Your task to perform on an android device: change notifications settings Image 0: 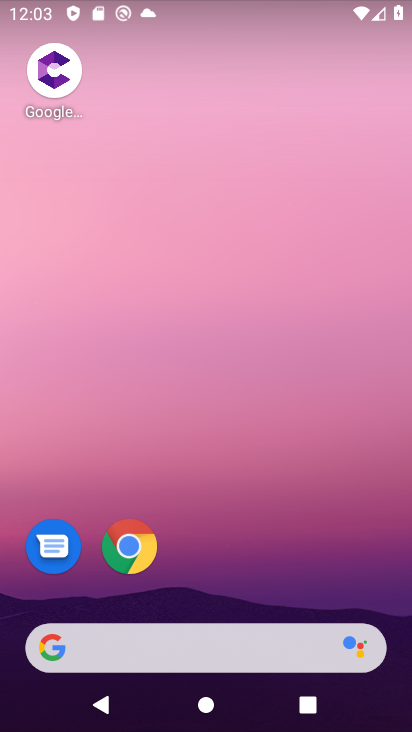
Step 0: drag from (193, 586) to (185, 31)
Your task to perform on an android device: change notifications settings Image 1: 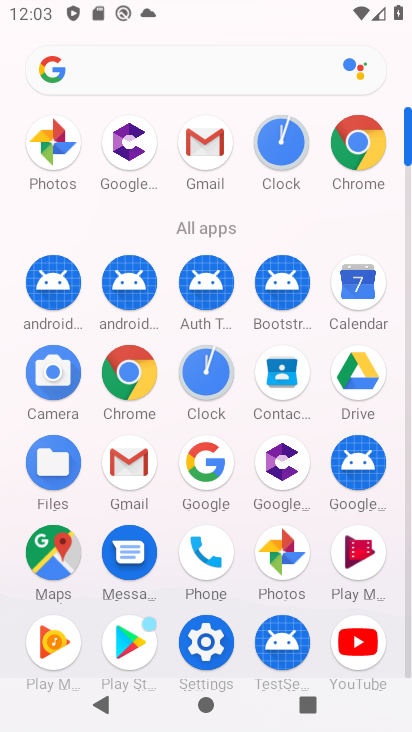
Step 1: click (202, 624)
Your task to perform on an android device: change notifications settings Image 2: 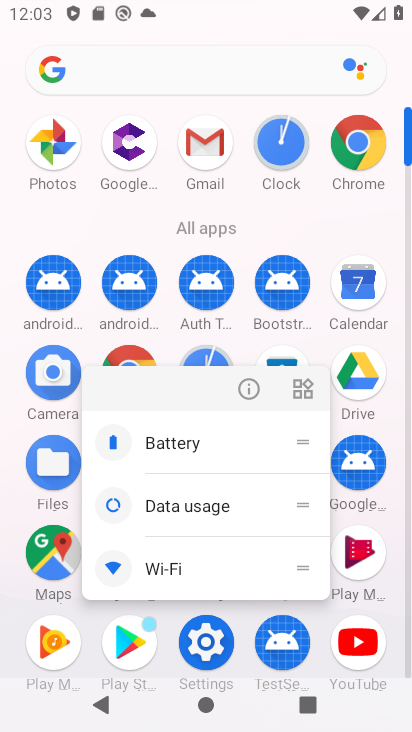
Step 2: click (258, 387)
Your task to perform on an android device: change notifications settings Image 3: 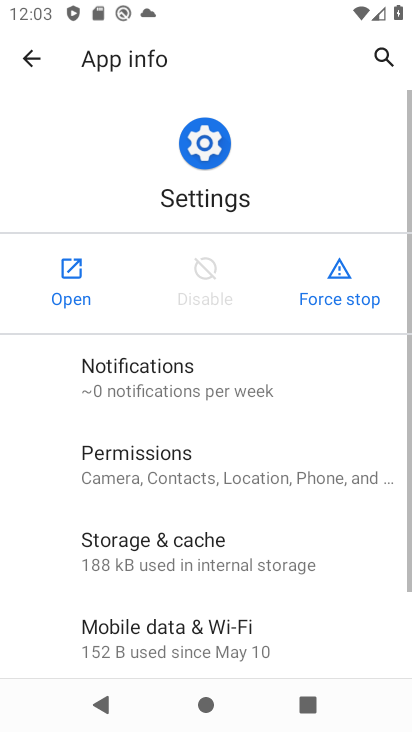
Step 3: click (63, 291)
Your task to perform on an android device: change notifications settings Image 4: 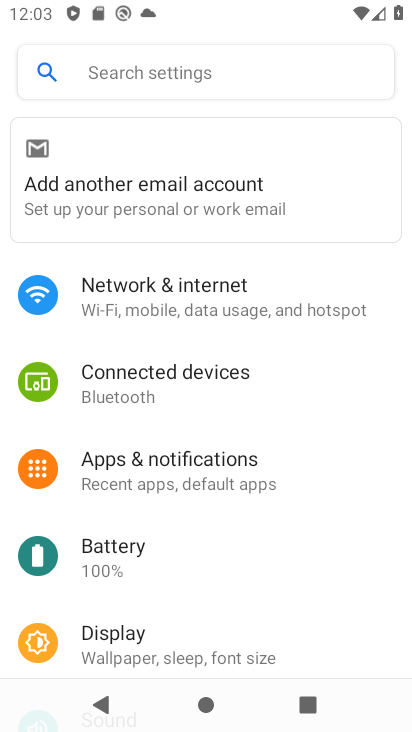
Step 4: drag from (197, 527) to (286, 191)
Your task to perform on an android device: change notifications settings Image 5: 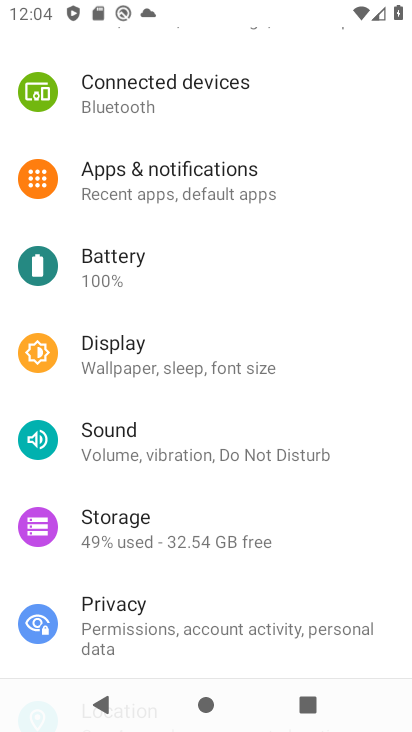
Step 5: drag from (120, 580) to (237, 256)
Your task to perform on an android device: change notifications settings Image 6: 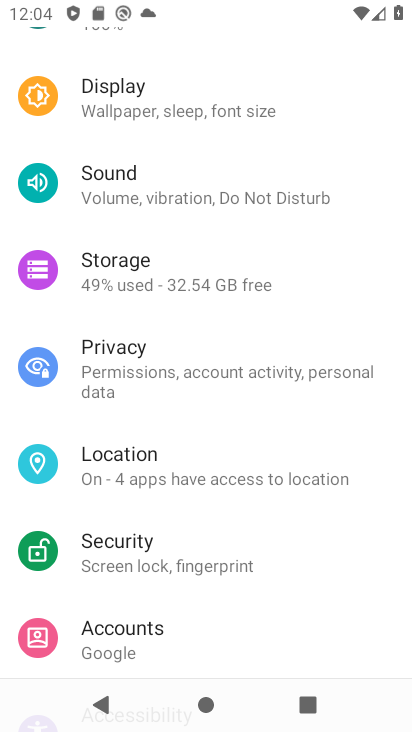
Step 6: drag from (218, 179) to (310, 725)
Your task to perform on an android device: change notifications settings Image 7: 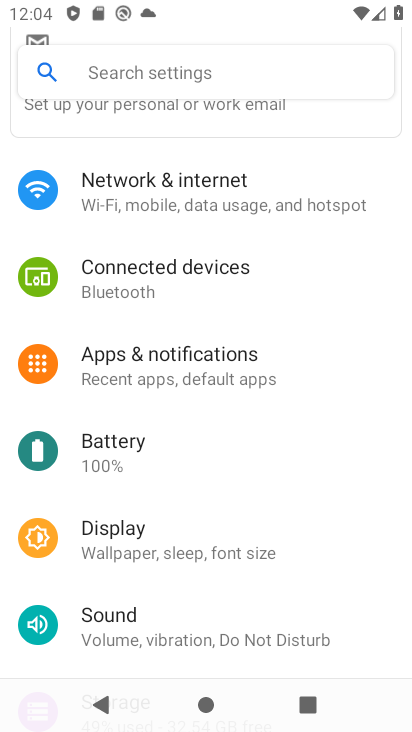
Step 7: click (180, 371)
Your task to perform on an android device: change notifications settings Image 8: 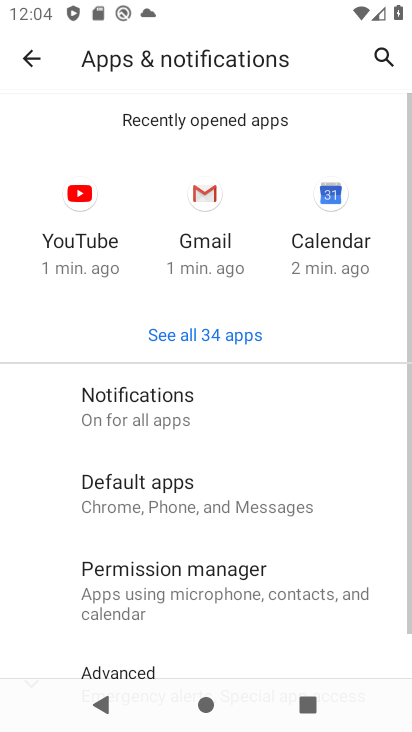
Step 8: click (188, 416)
Your task to perform on an android device: change notifications settings Image 9: 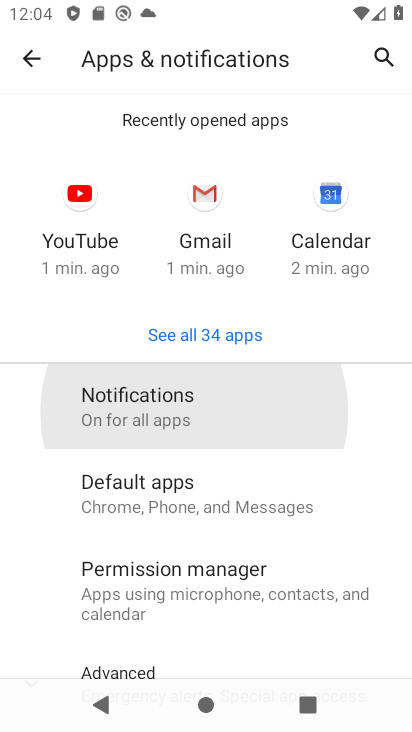
Step 9: click (188, 416)
Your task to perform on an android device: change notifications settings Image 10: 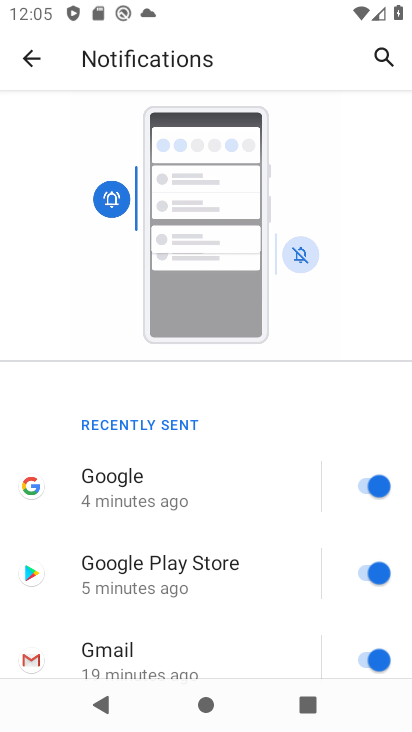
Step 10: drag from (170, 514) to (200, 443)
Your task to perform on an android device: change notifications settings Image 11: 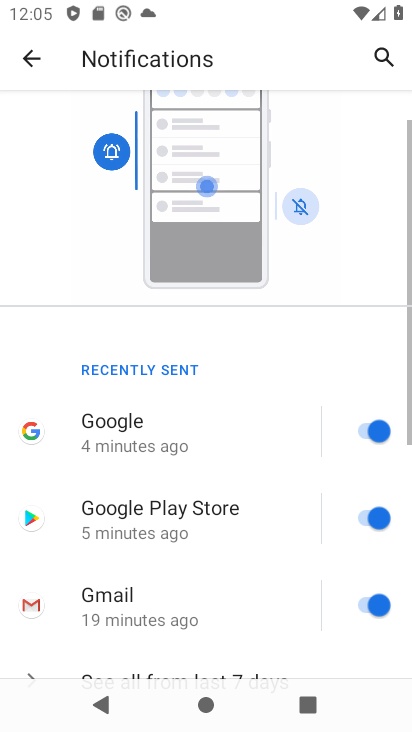
Step 11: drag from (240, 581) to (346, 168)
Your task to perform on an android device: change notifications settings Image 12: 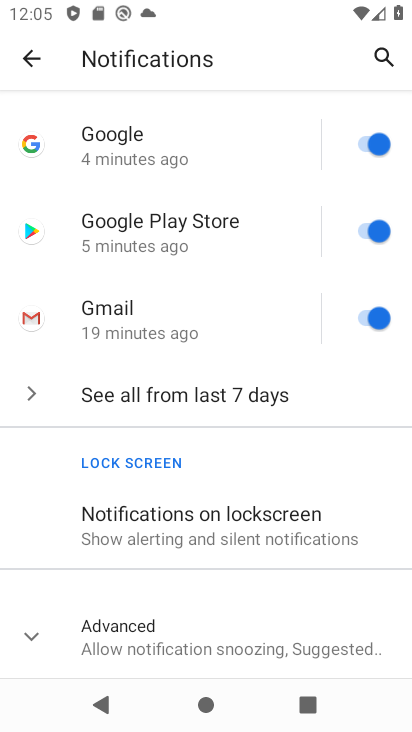
Step 12: drag from (175, 661) to (254, 344)
Your task to perform on an android device: change notifications settings Image 13: 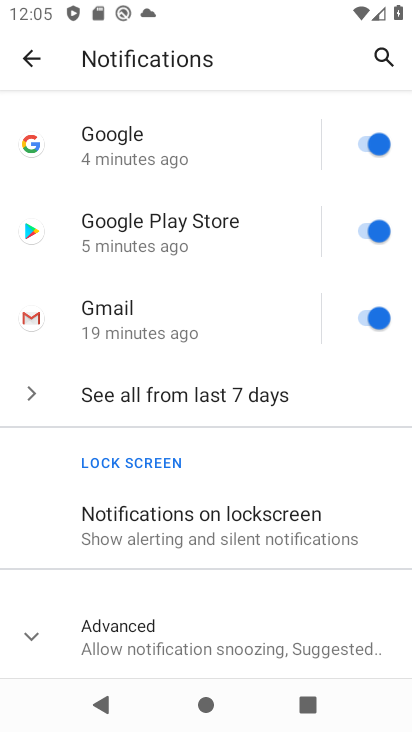
Step 13: click (369, 318)
Your task to perform on an android device: change notifications settings Image 14: 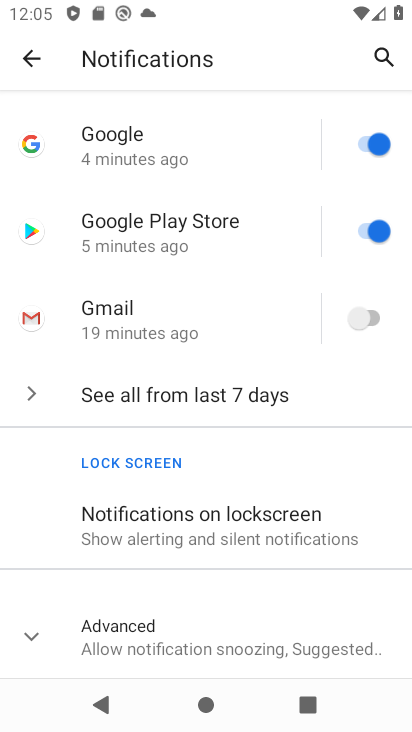
Step 14: task complete